Your task to perform on an android device: Go to Maps Image 0: 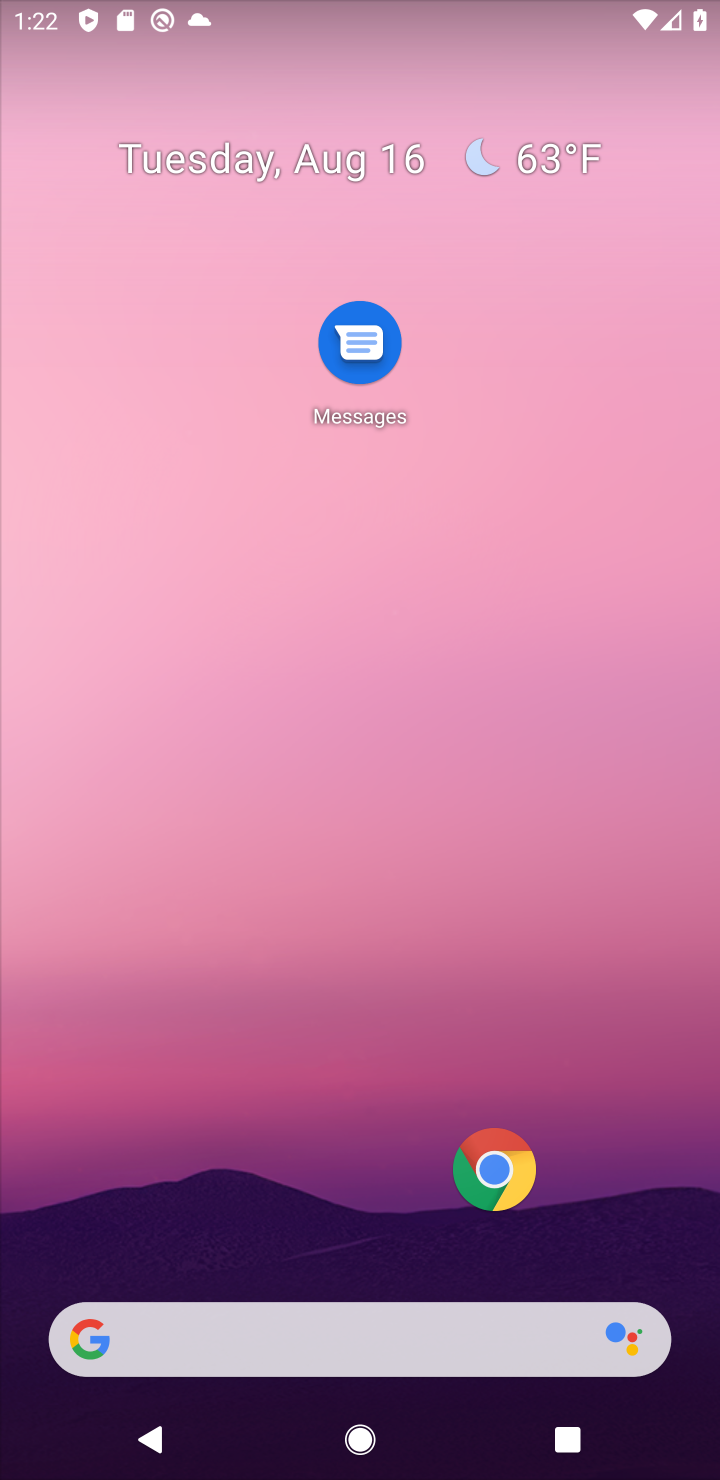
Step 0: drag from (71, 1421) to (518, 431)
Your task to perform on an android device: Go to Maps Image 1: 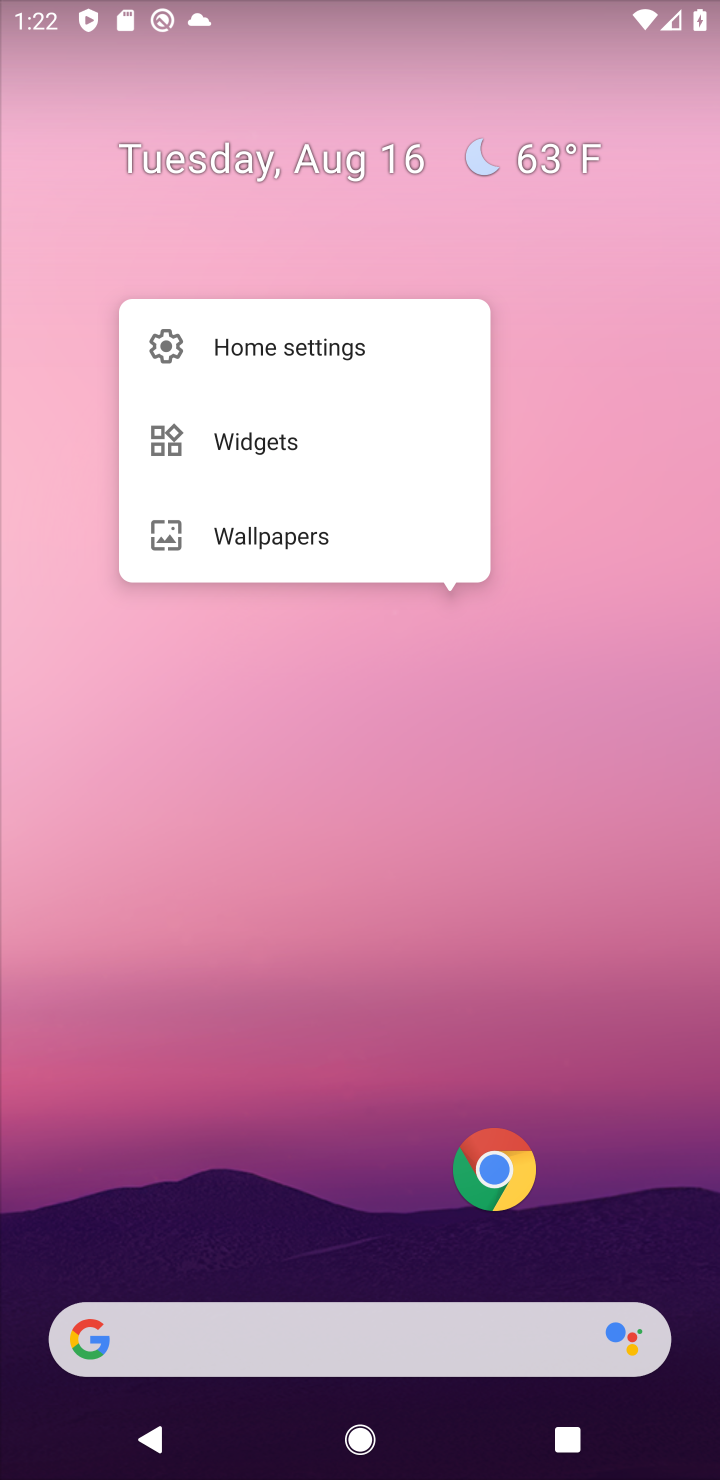
Step 1: click (97, 1410)
Your task to perform on an android device: Go to Maps Image 2: 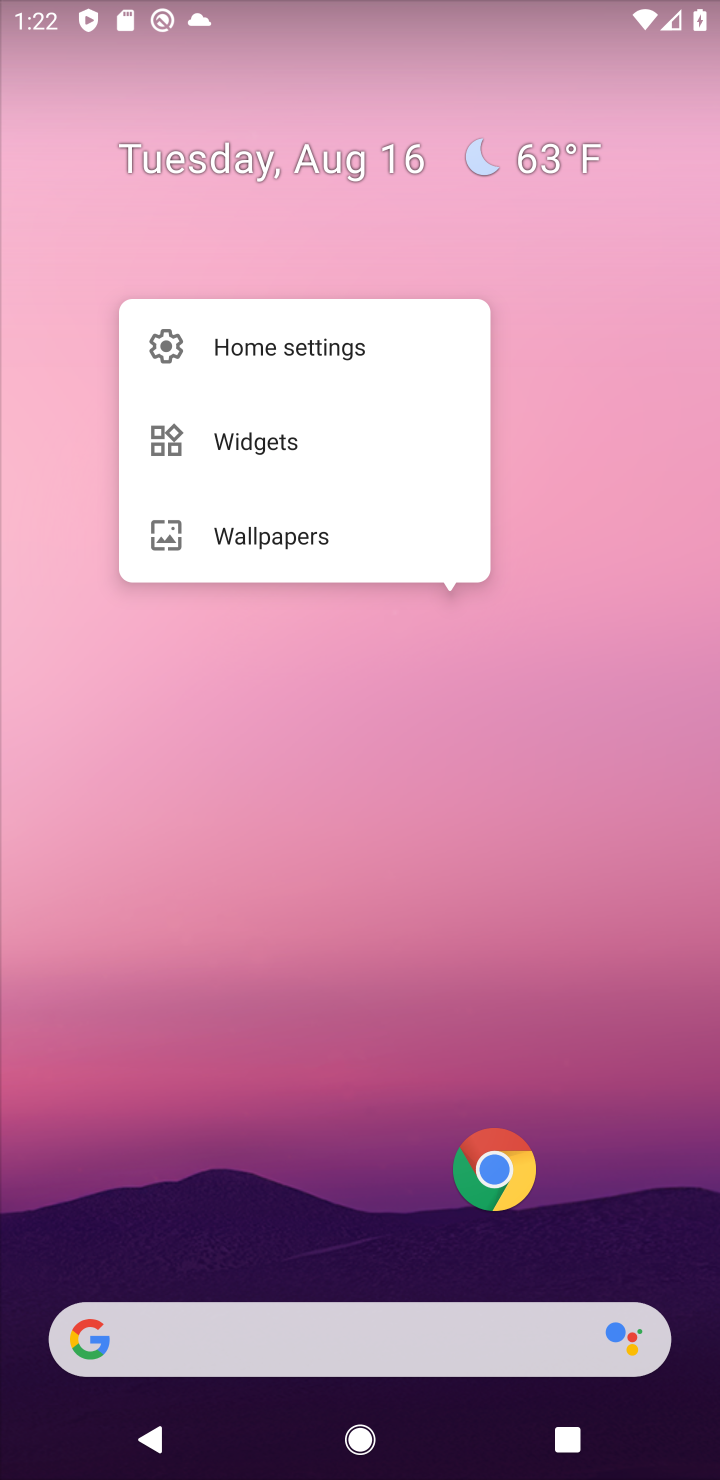
Step 2: task complete